Your task to perform on an android device: Clear all items from cart on costco.com. Search for dell alienware on costco.com, select the first entry, add it to the cart, then select checkout. Image 0: 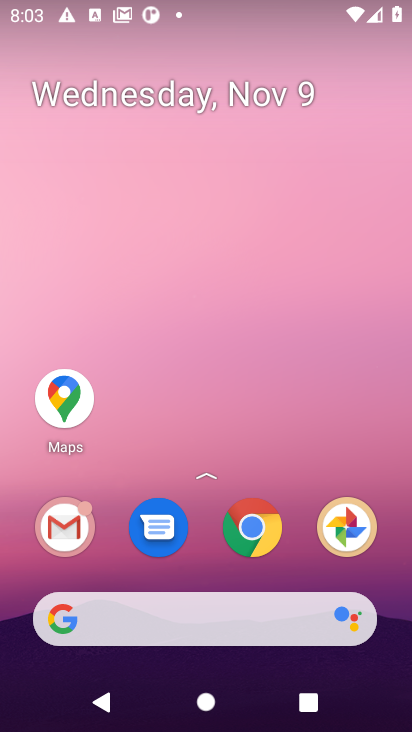
Step 0: click (253, 532)
Your task to perform on an android device: Clear all items from cart on costco.com. Search for dell alienware on costco.com, select the first entry, add it to the cart, then select checkout. Image 1: 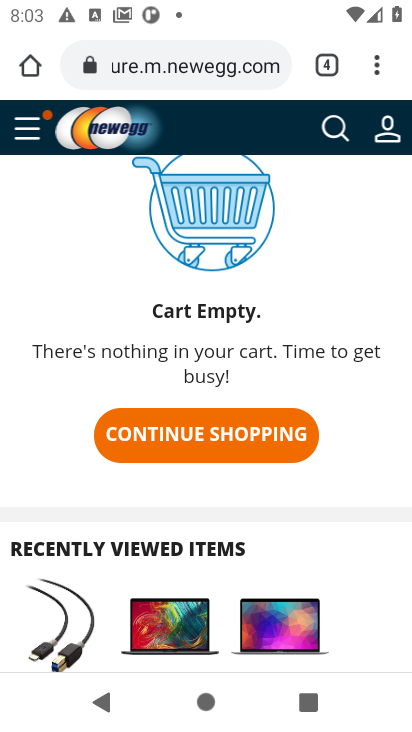
Step 1: click (234, 68)
Your task to perform on an android device: Clear all items from cart on costco.com. Search for dell alienware on costco.com, select the first entry, add it to the cart, then select checkout. Image 2: 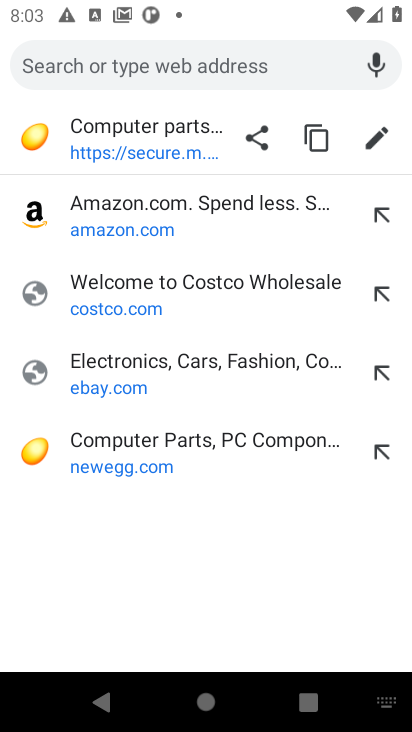
Step 2: click (110, 297)
Your task to perform on an android device: Clear all items from cart on costco.com. Search for dell alienware on costco.com, select the first entry, add it to the cart, then select checkout. Image 3: 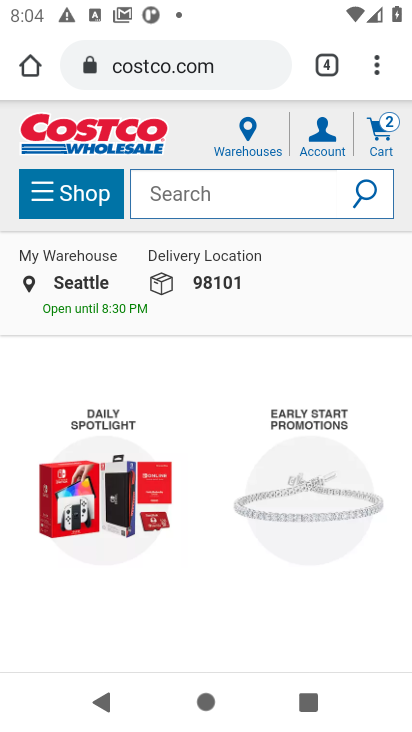
Step 3: click (386, 122)
Your task to perform on an android device: Clear all items from cart on costco.com. Search for dell alienware on costco.com, select the first entry, add it to the cart, then select checkout. Image 4: 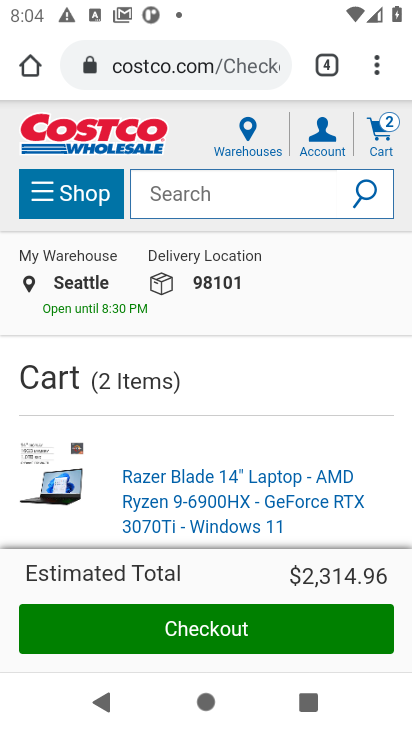
Step 4: drag from (218, 433) to (235, 302)
Your task to perform on an android device: Clear all items from cart on costco.com. Search for dell alienware on costco.com, select the first entry, add it to the cart, then select checkout. Image 5: 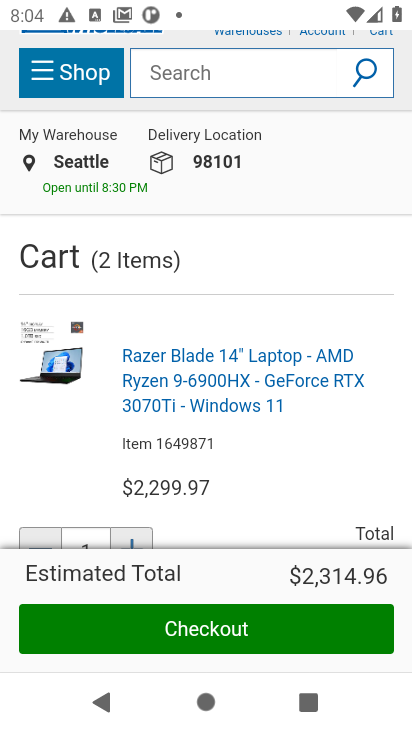
Step 5: drag from (227, 487) to (242, 322)
Your task to perform on an android device: Clear all items from cart on costco.com. Search for dell alienware on costco.com, select the first entry, add it to the cart, then select checkout. Image 6: 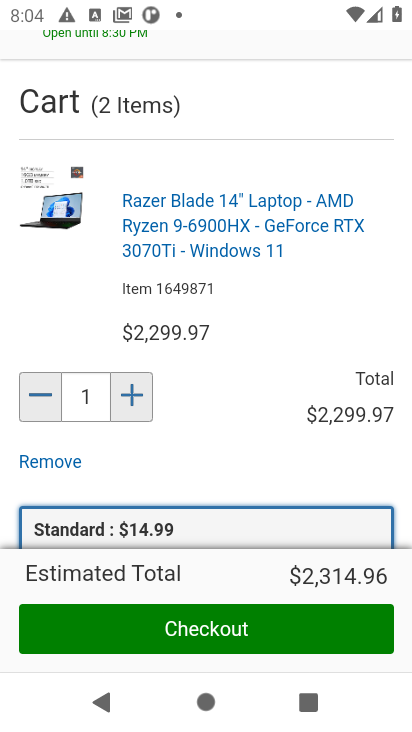
Step 6: drag from (224, 435) to (247, 125)
Your task to perform on an android device: Clear all items from cart on costco.com. Search for dell alienware on costco.com, select the first entry, add it to the cart, then select checkout. Image 7: 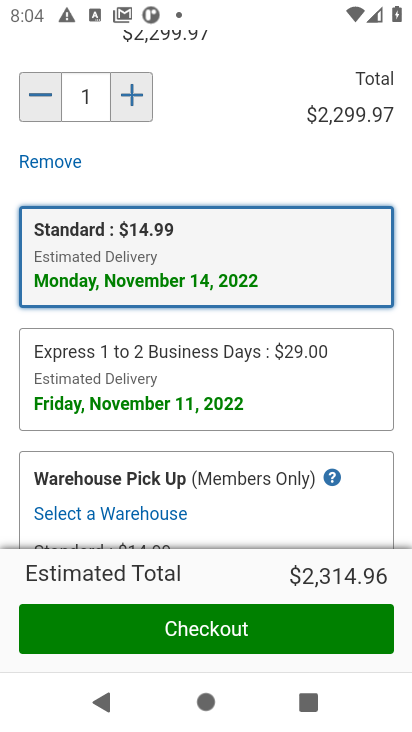
Step 7: drag from (222, 423) to (225, 196)
Your task to perform on an android device: Clear all items from cart on costco.com. Search for dell alienware on costco.com, select the first entry, add it to the cart, then select checkout. Image 8: 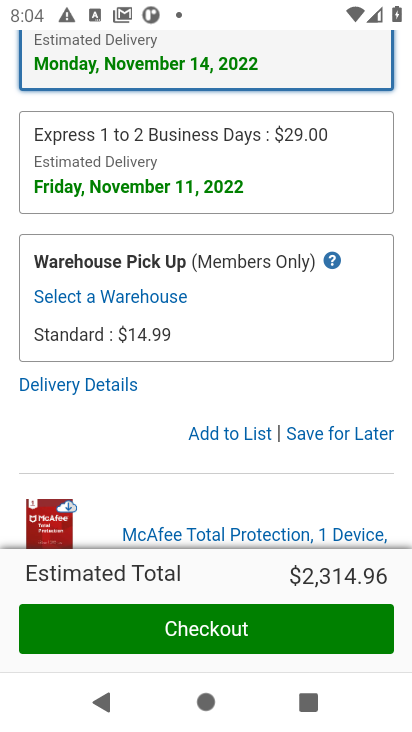
Step 8: click (314, 434)
Your task to perform on an android device: Clear all items from cart on costco.com. Search for dell alienware on costco.com, select the first entry, add it to the cart, then select checkout. Image 9: 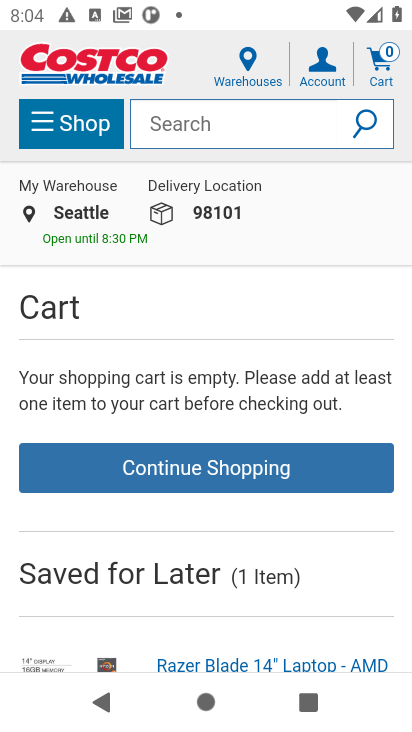
Step 9: click (199, 126)
Your task to perform on an android device: Clear all items from cart on costco.com. Search for dell alienware on costco.com, select the first entry, add it to the cart, then select checkout. Image 10: 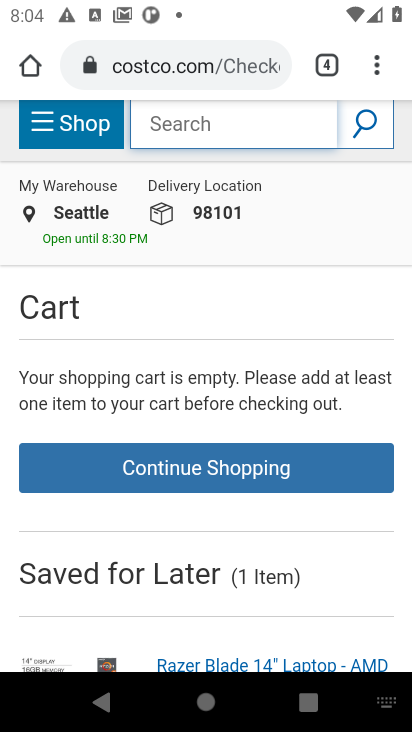
Step 10: type "dell alienware"
Your task to perform on an android device: Clear all items from cart on costco.com. Search for dell alienware on costco.com, select the first entry, add it to the cart, then select checkout. Image 11: 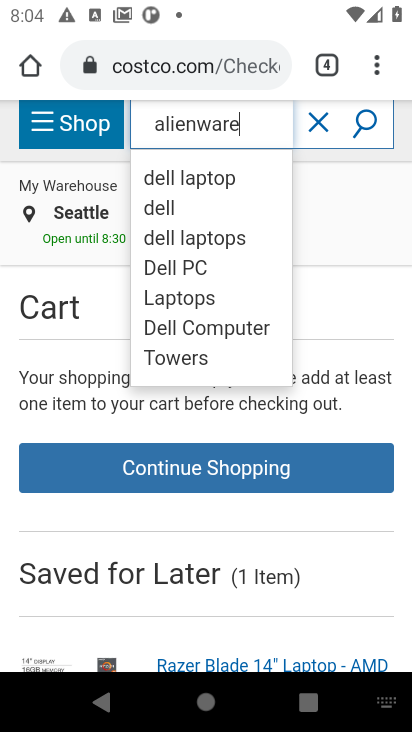
Step 11: click (365, 126)
Your task to perform on an android device: Clear all items from cart on costco.com. Search for dell alienware on costco.com, select the first entry, add it to the cart, then select checkout. Image 12: 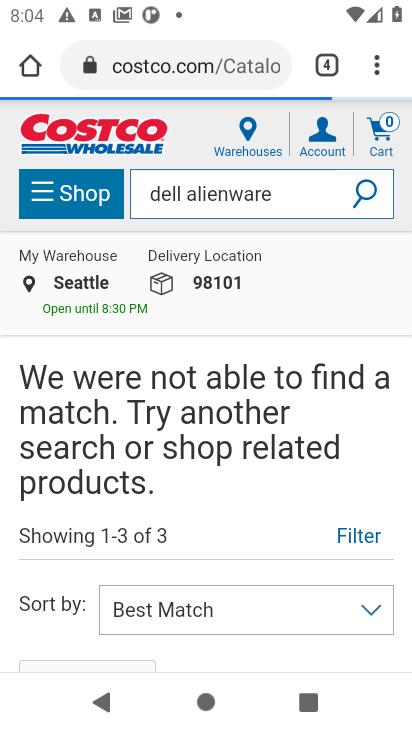
Step 12: task complete